Your task to perform on an android device: turn on the 24-hour format for clock Image 0: 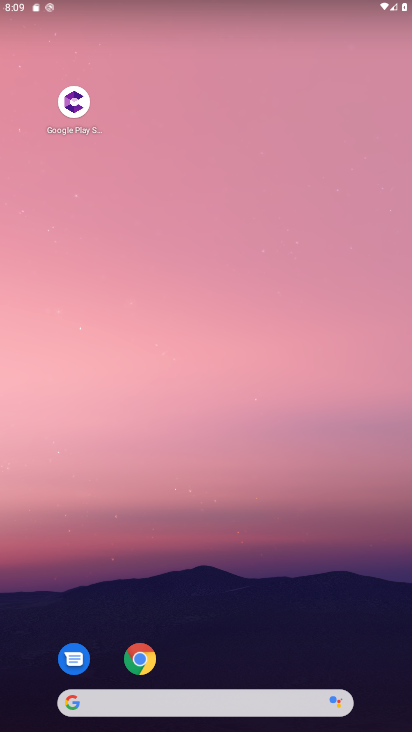
Step 0: drag from (55, 596) to (331, 585)
Your task to perform on an android device: turn on the 24-hour format for clock Image 1: 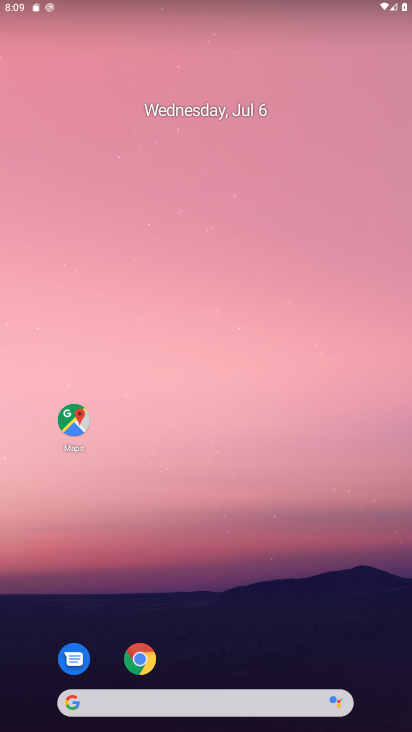
Step 1: drag from (243, 649) to (261, 159)
Your task to perform on an android device: turn on the 24-hour format for clock Image 2: 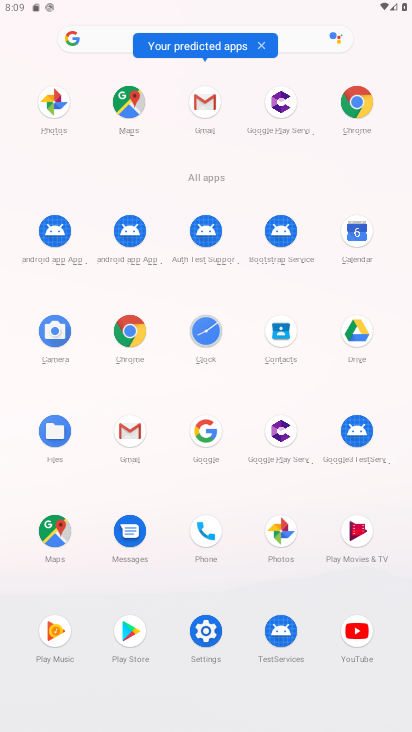
Step 2: click (206, 344)
Your task to perform on an android device: turn on the 24-hour format for clock Image 3: 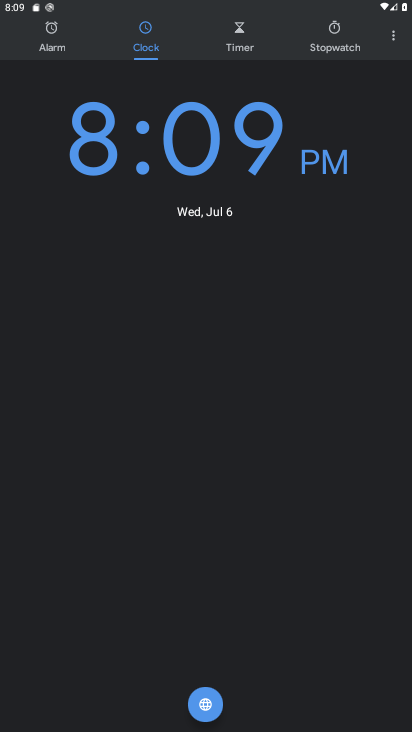
Step 3: click (395, 30)
Your task to perform on an android device: turn on the 24-hour format for clock Image 4: 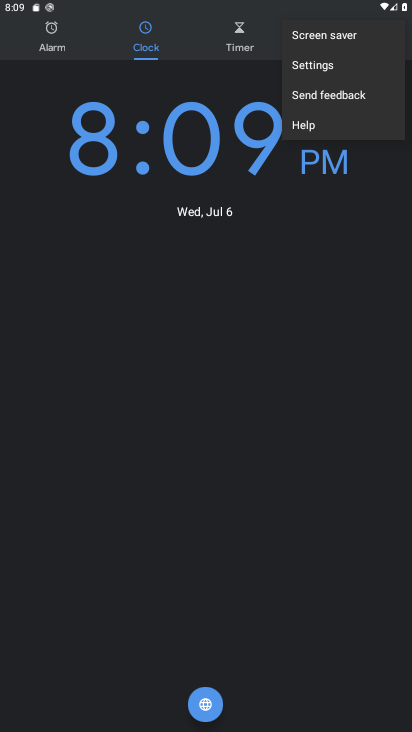
Step 4: click (354, 74)
Your task to perform on an android device: turn on the 24-hour format for clock Image 5: 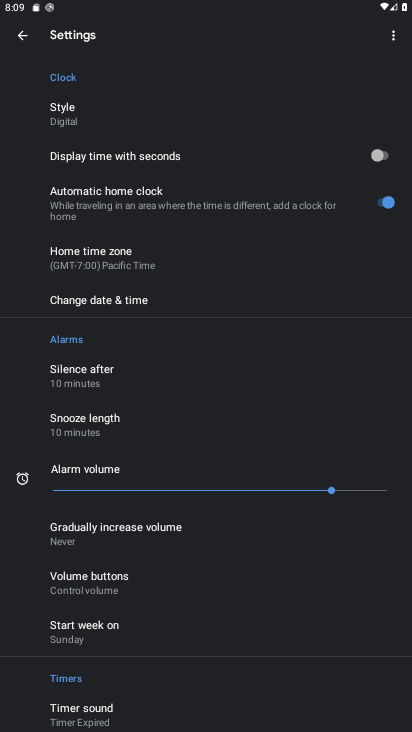
Step 5: click (178, 284)
Your task to perform on an android device: turn on the 24-hour format for clock Image 6: 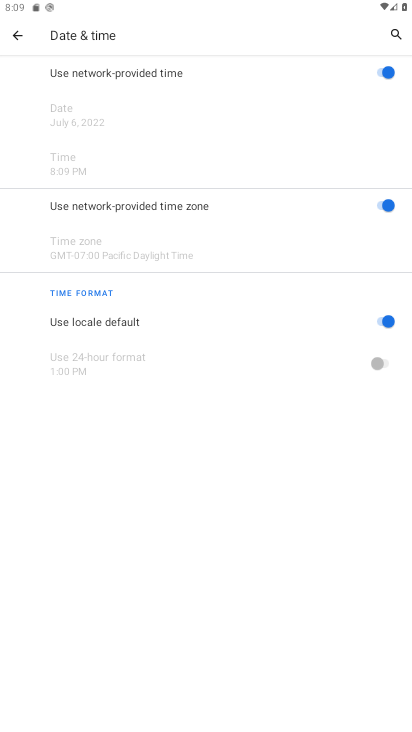
Step 6: click (388, 322)
Your task to perform on an android device: turn on the 24-hour format for clock Image 7: 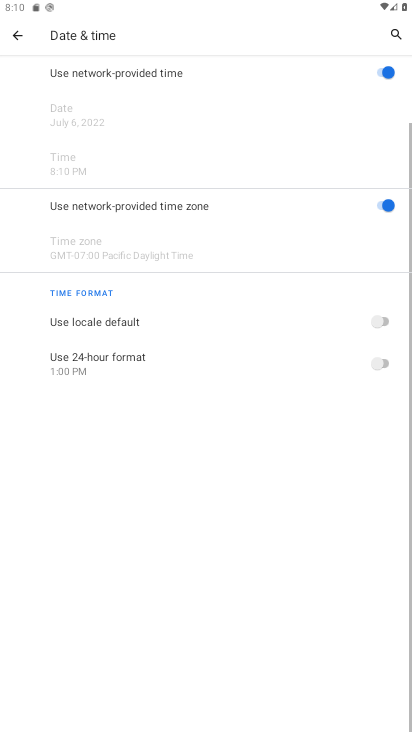
Step 7: click (381, 357)
Your task to perform on an android device: turn on the 24-hour format for clock Image 8: 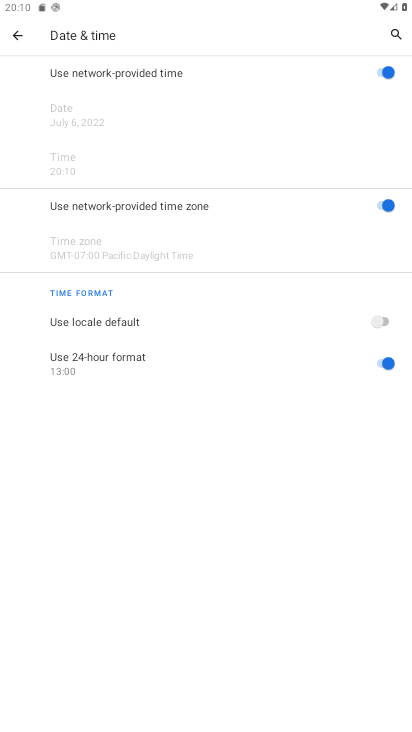
Step 8: task complete